Your task to perform on an android device: Go to wifi settings Image 0: 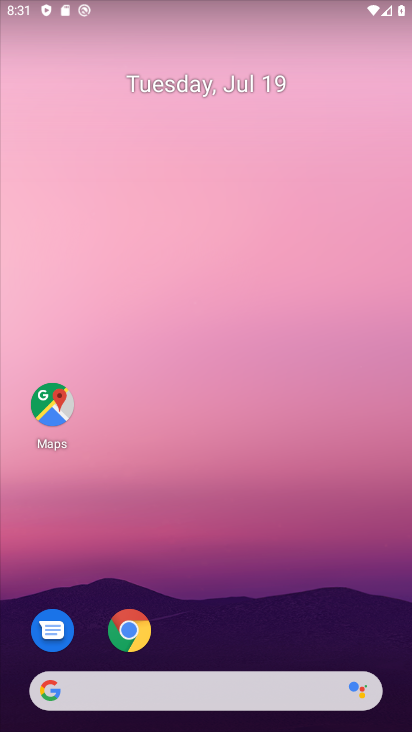
Step 0: drag from (206, 655) to (210, 142)
Your task to perform on an android device: Go to wifi settings Image 1: 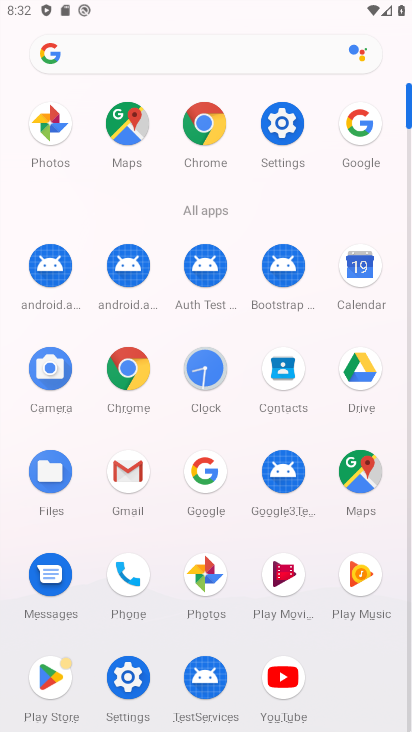
Step 1: click (274, 123)
Your task to perform on an android device: Go to wifi settings Image 2: 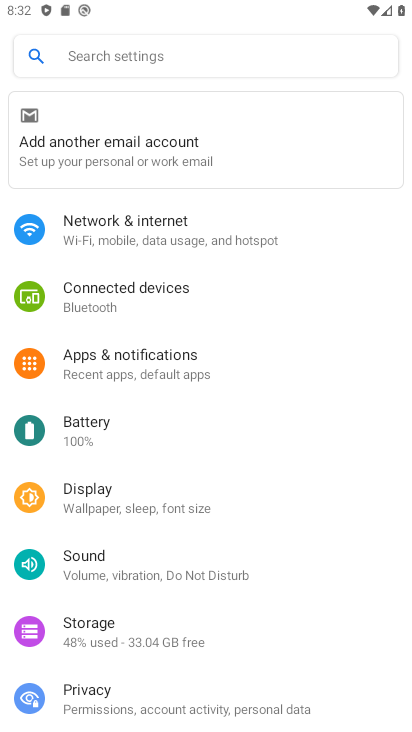
Step 2: click (195, 228)
Your task to perform on an android device: Go to wifi settings Image 3: 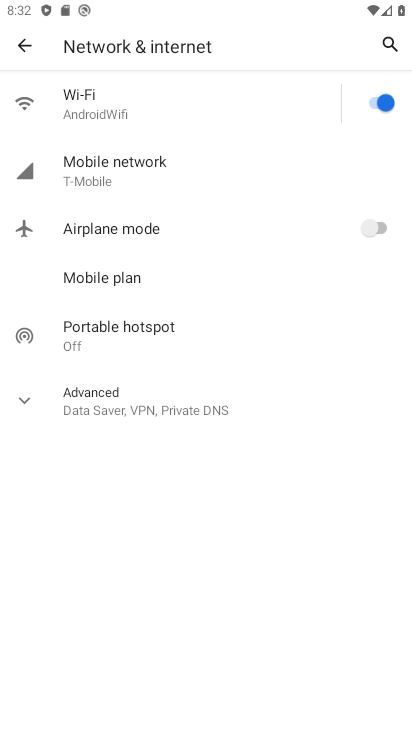
Step 3: click (141, 110)
Your task to perform on an android device: Go to wifi settings Image 4: 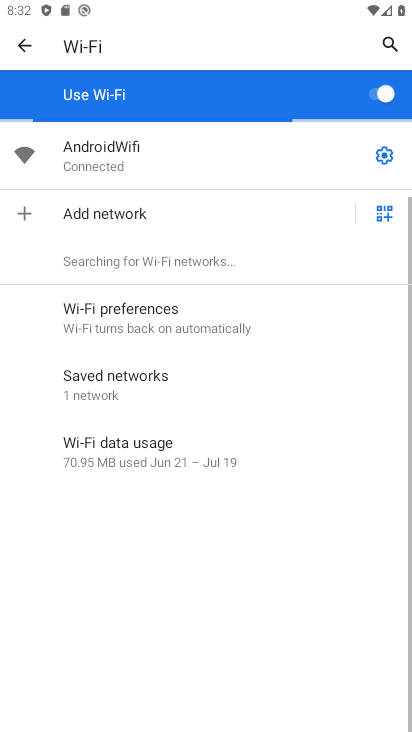
Step 4: click (179, 170)
Your task to perform on an android device: Go to wifi settings Image 5: 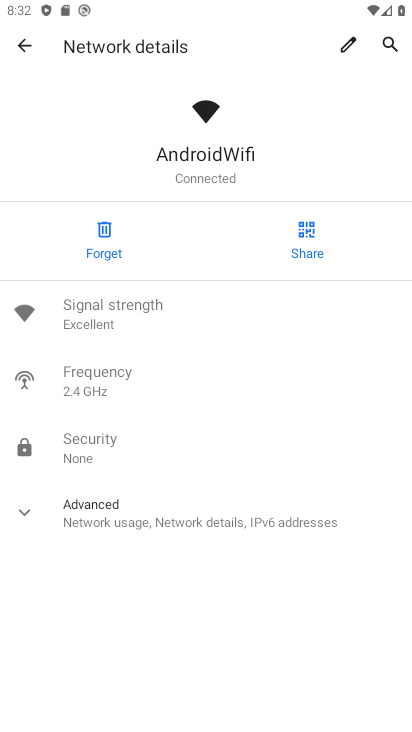
Step 5: task complete